Your task to perform on an android device: change alarm snooze length Image 0: 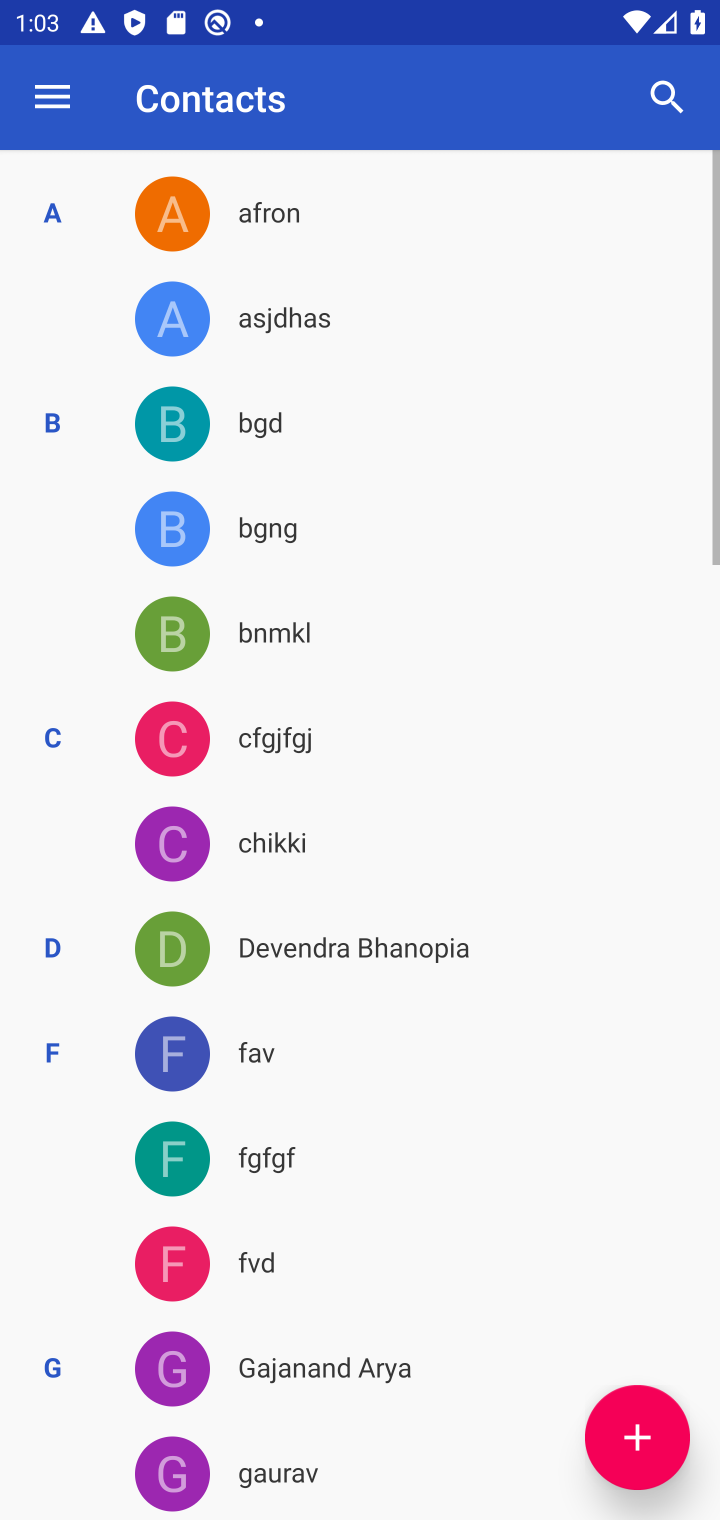
Step 0: press home button
Your task to perform on an android device: change alarm snooze length Image 1: 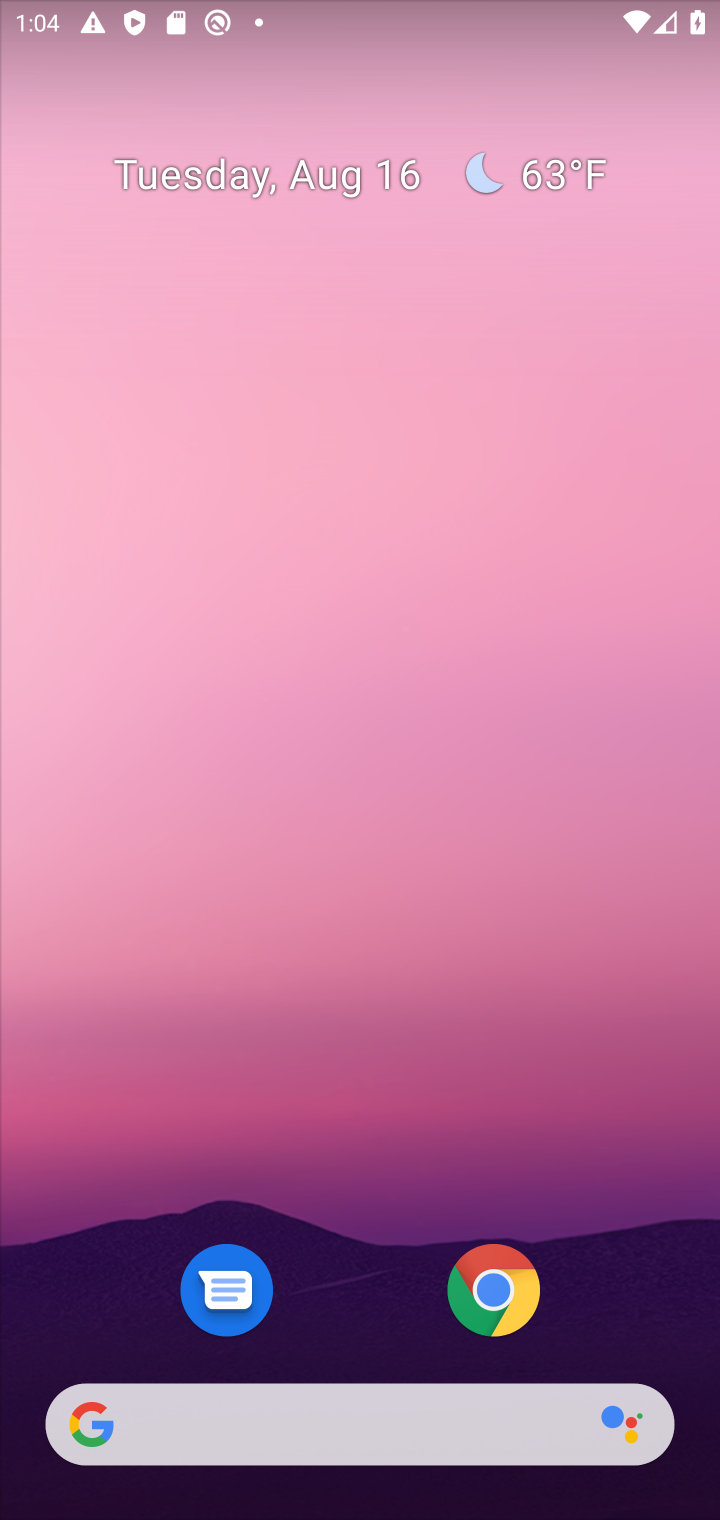
Step 1: click (346, 1416)
Your task to perform on an android device: change alarm snooze length Image 2: 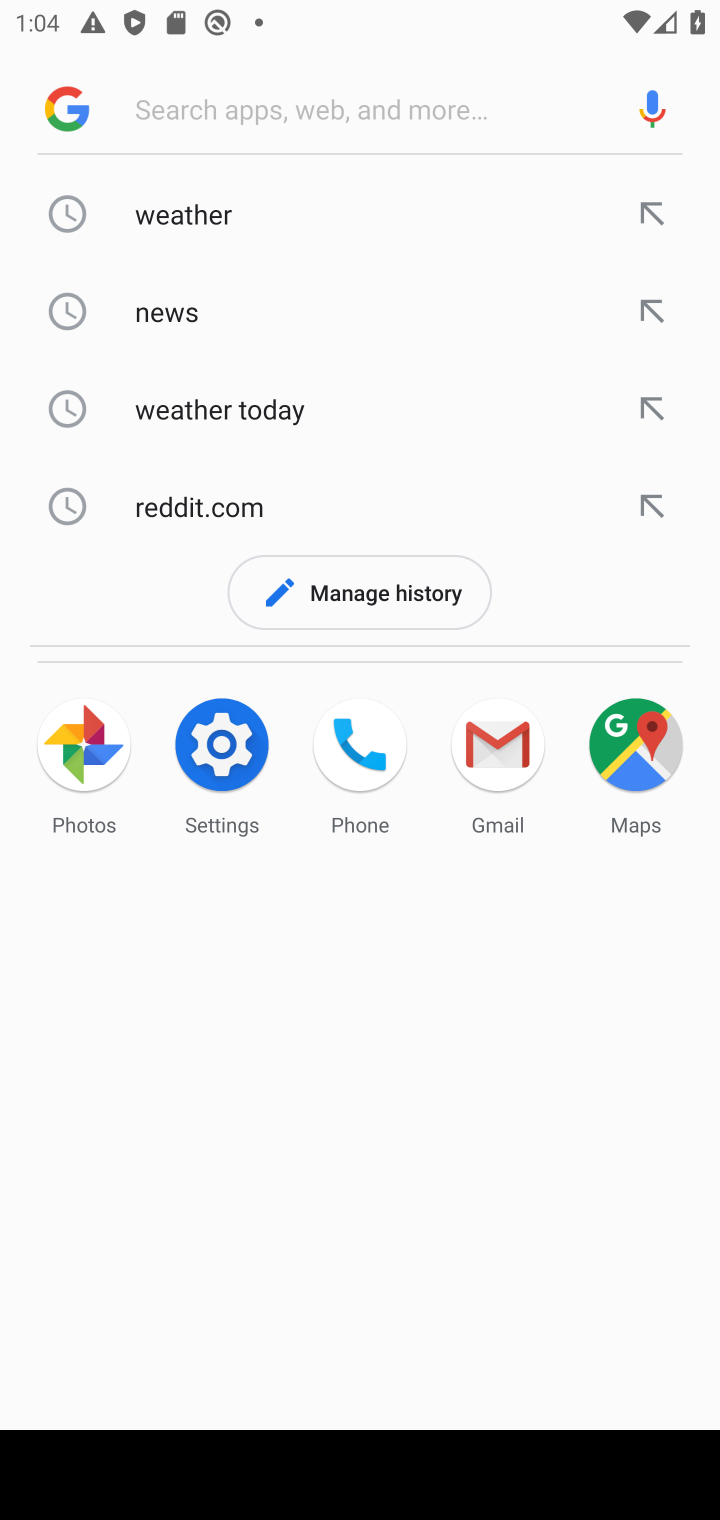
Step 2: press home button
Your task to perform on an android device: change alarm snooze length Image 3: 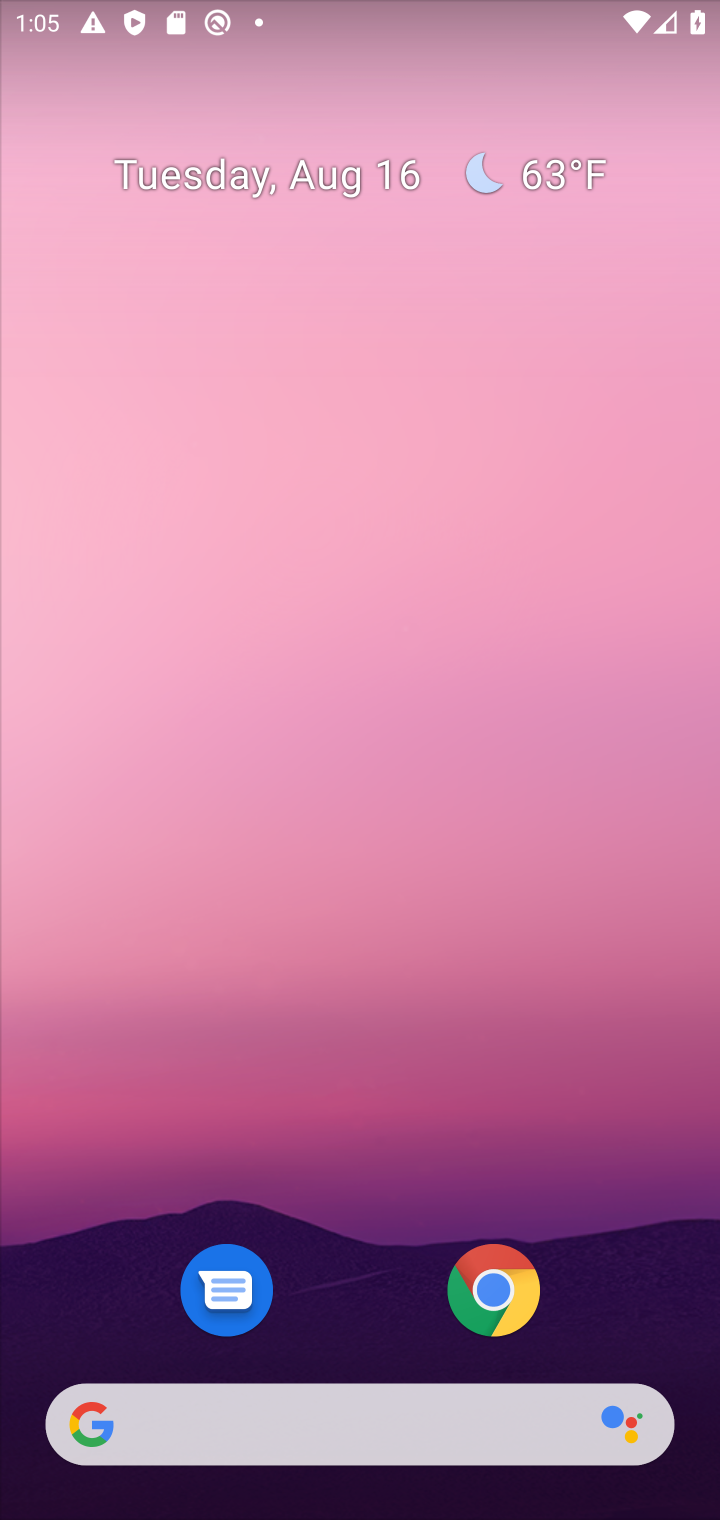
Step 3: drag from (206, 630) to (401, 91)
Your task to perform on an android device: change alarm snooze length Image 4: 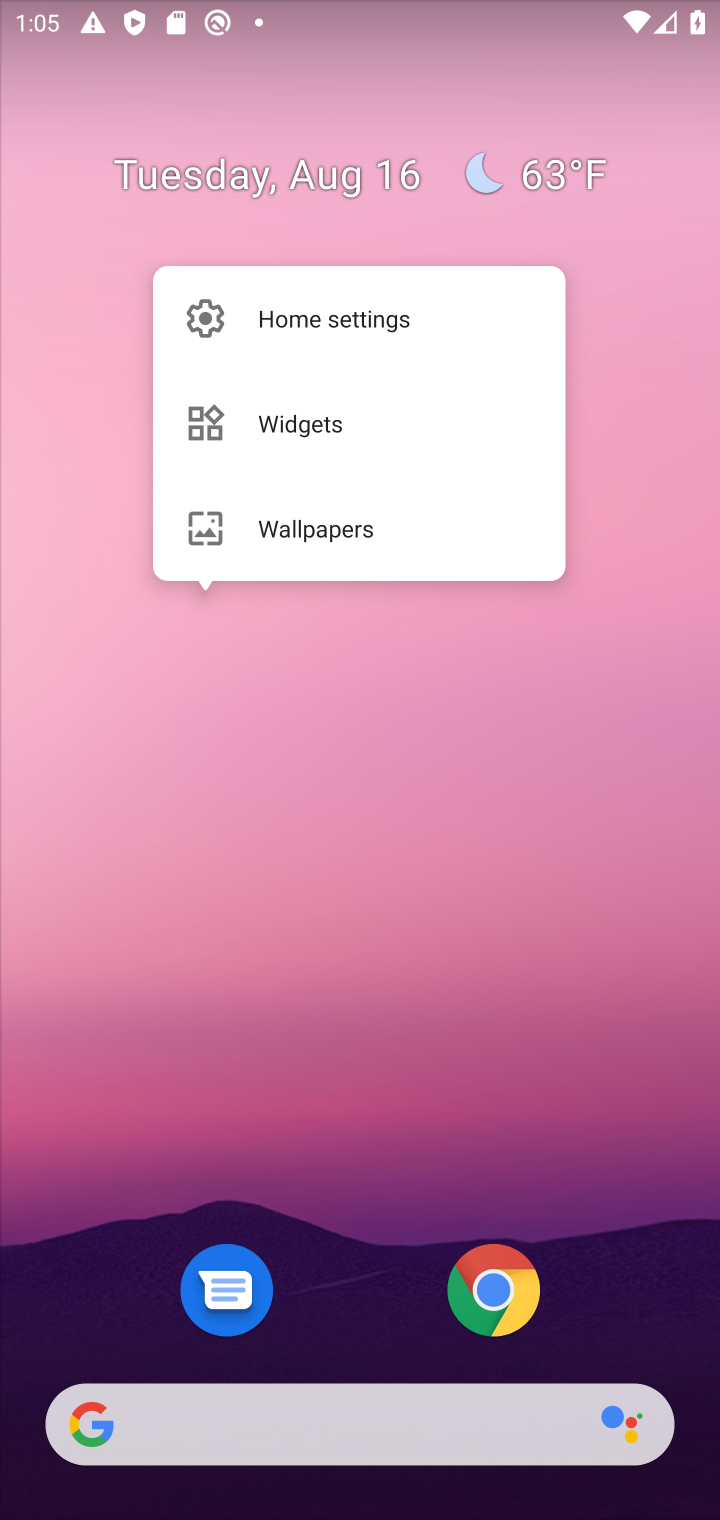
Step 4: click (301, 972)
Your task to perform on an android device: change alarm snooze length Image 5: 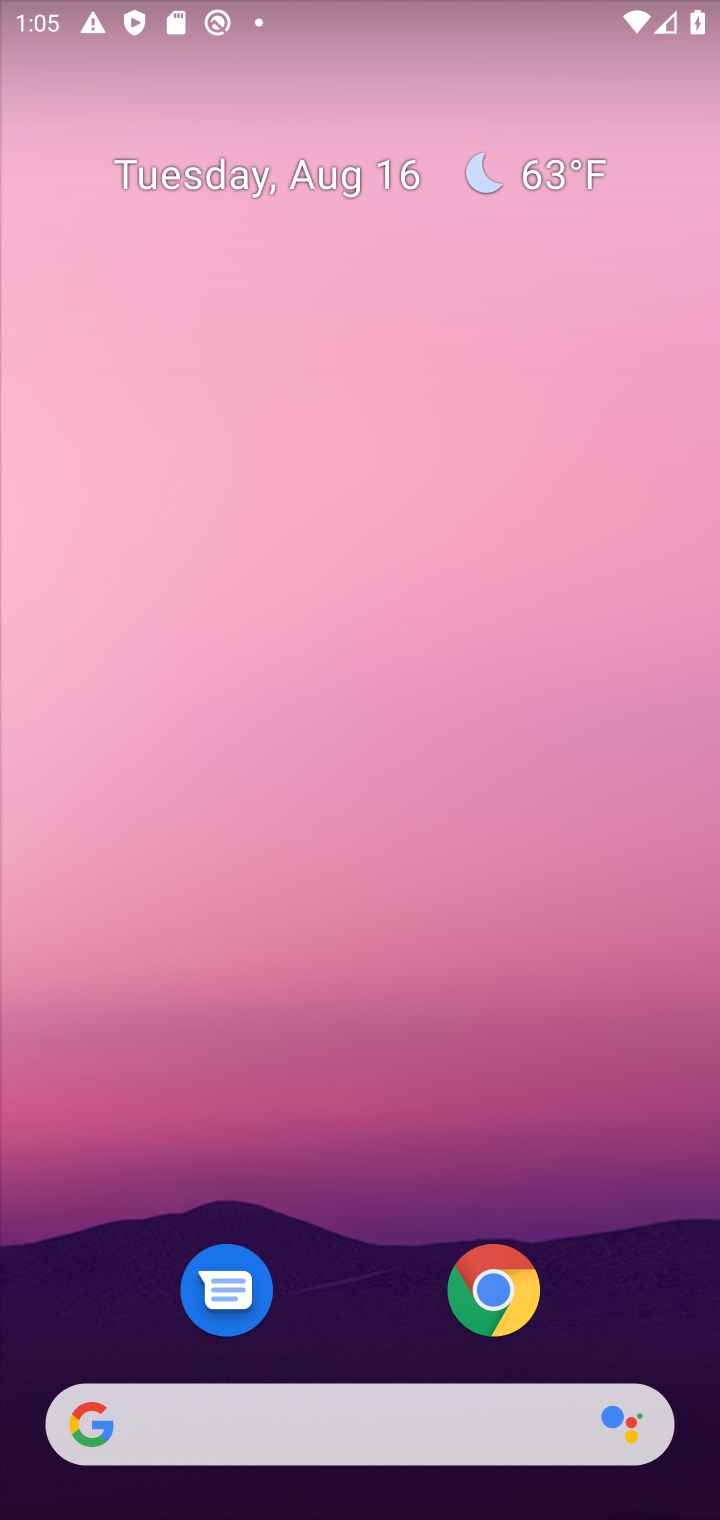
Step 5: press home button
Your task to perform on an android device: change alarm snooze length Image 6: 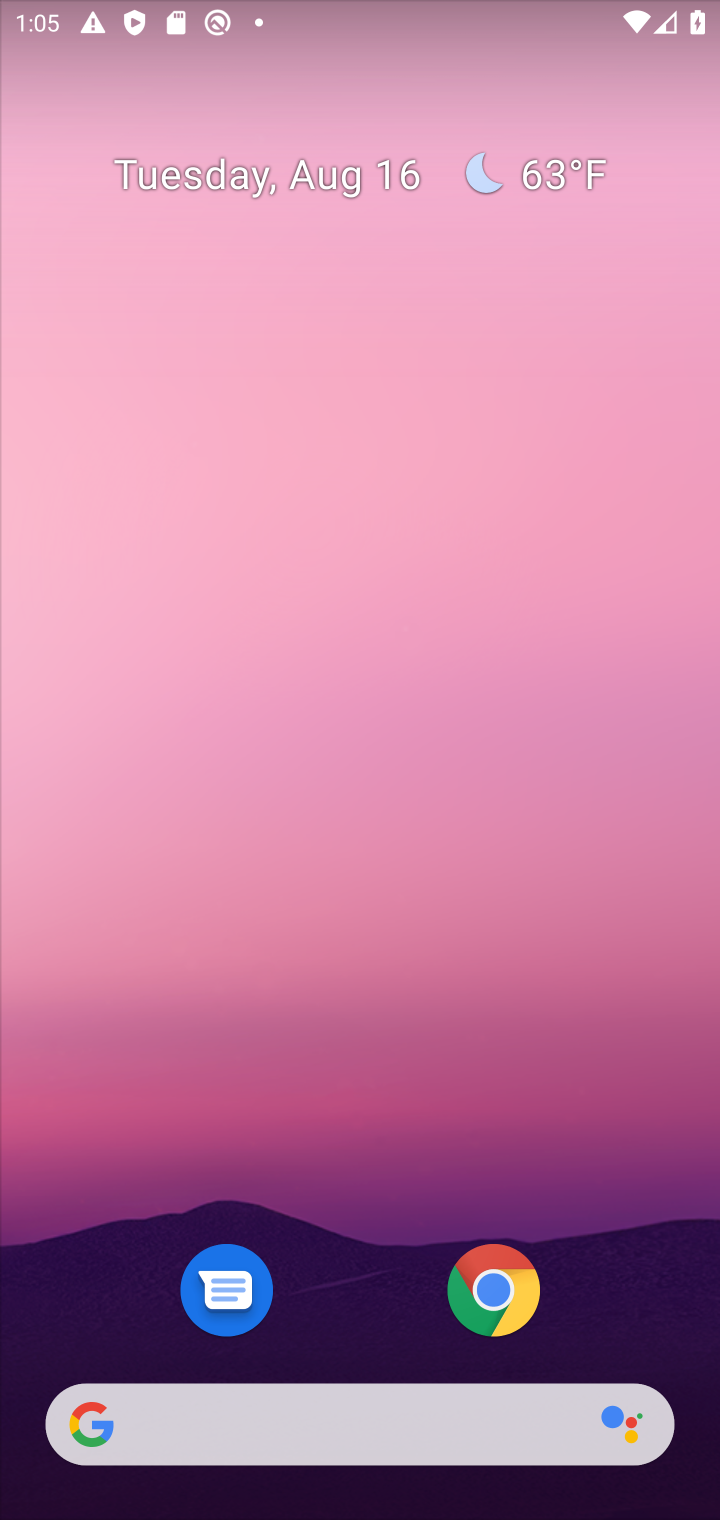
Step 6: drag from (145, 1099) to (470, 31)
Your task to perform on an android device: change alarm snooze length Image 7: 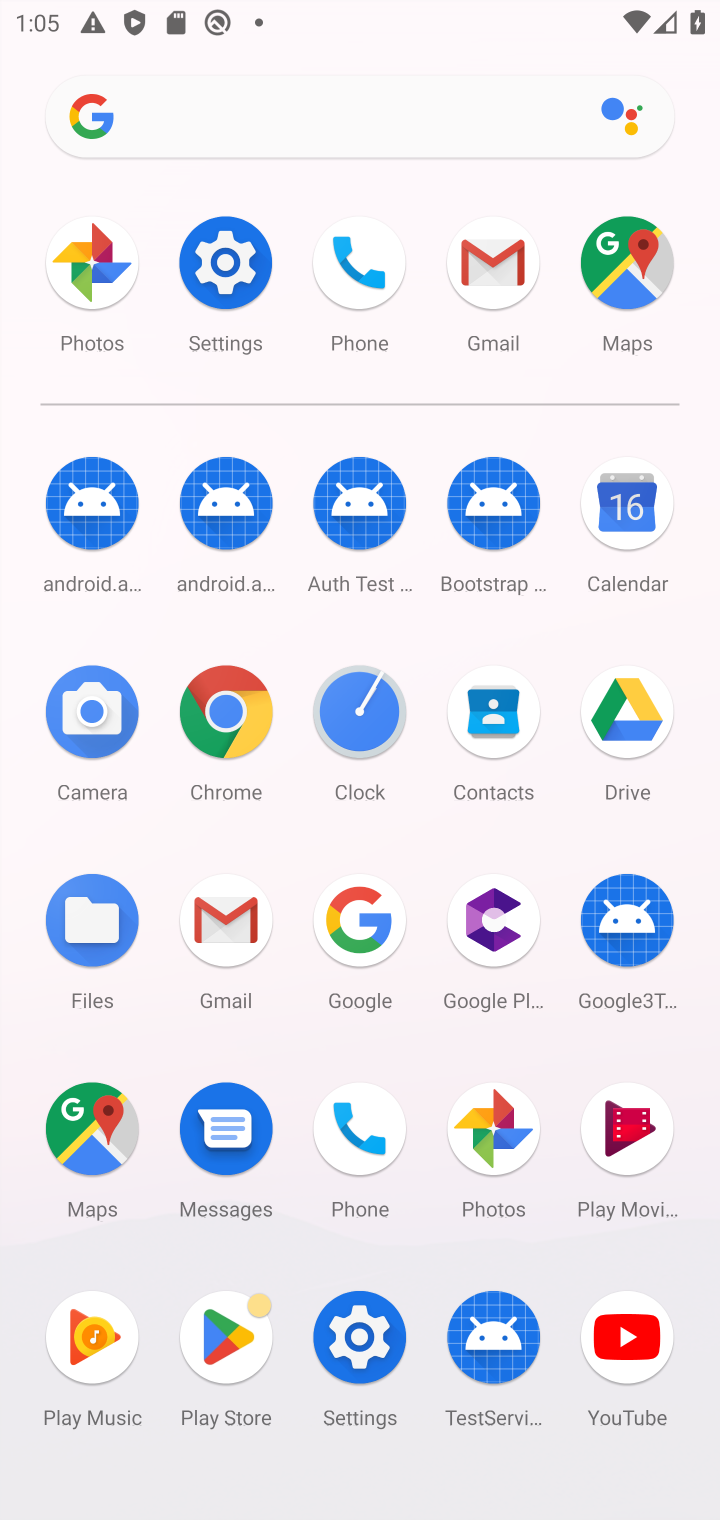
Step 7: click (358, 695)
Your task to perform on an android device: change alarm snooze length Image 8: 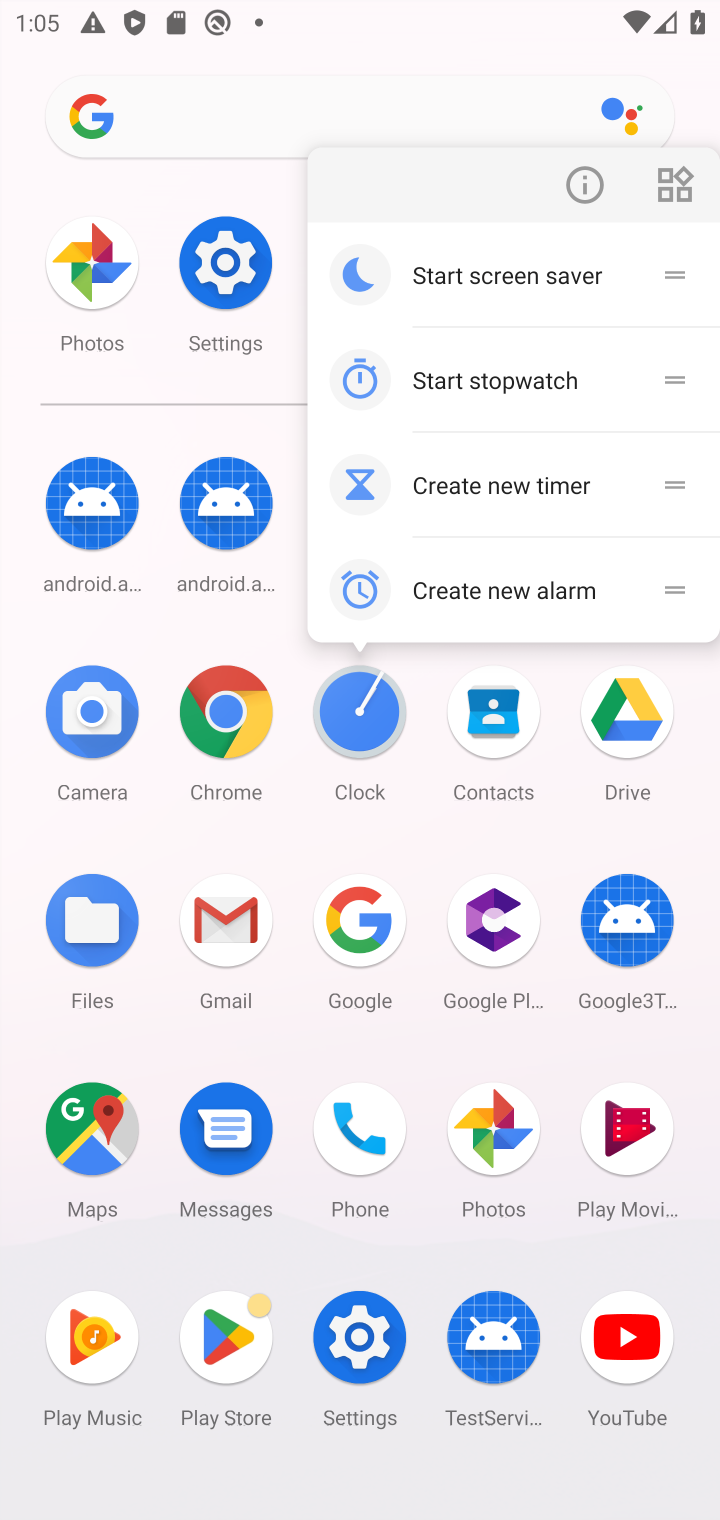
Step 8: click (331, 742)
Your task to perform on an android device: change alarm snooze length Image 9: 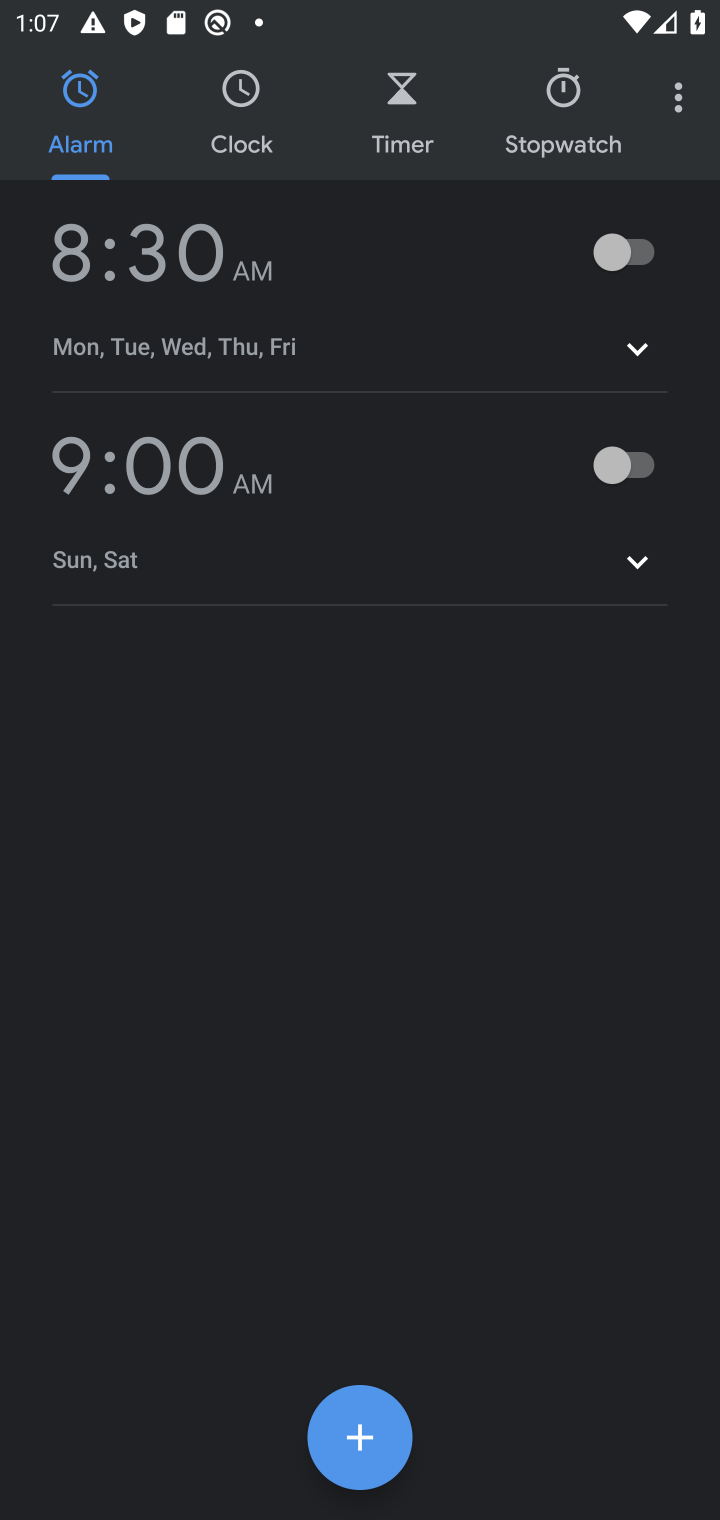
Step 9: click (678, 101)
Your task to perform on an android device: change alarm snooze length Image 10: 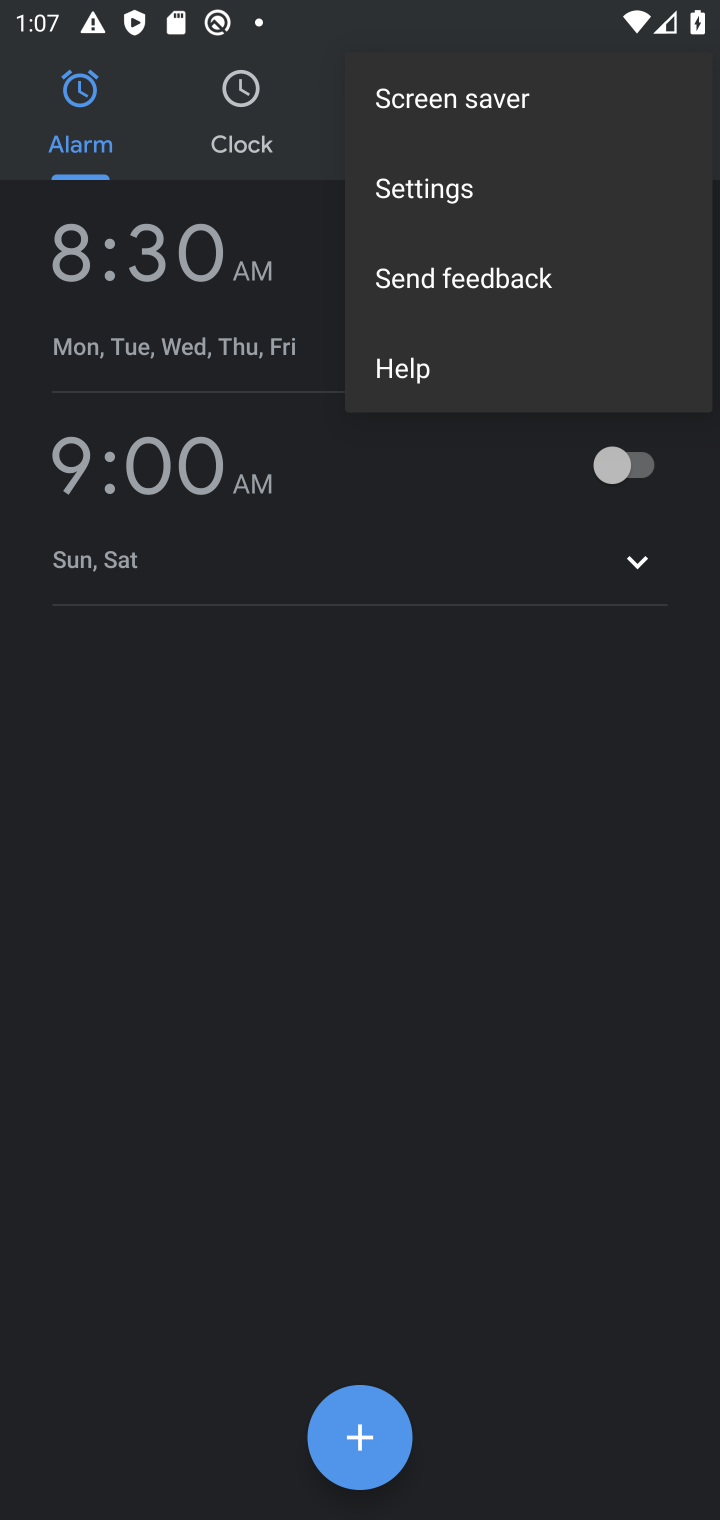
Step 10: click (472, 189)
Your task to perform on an android device: change alarm snooze length Image 11: 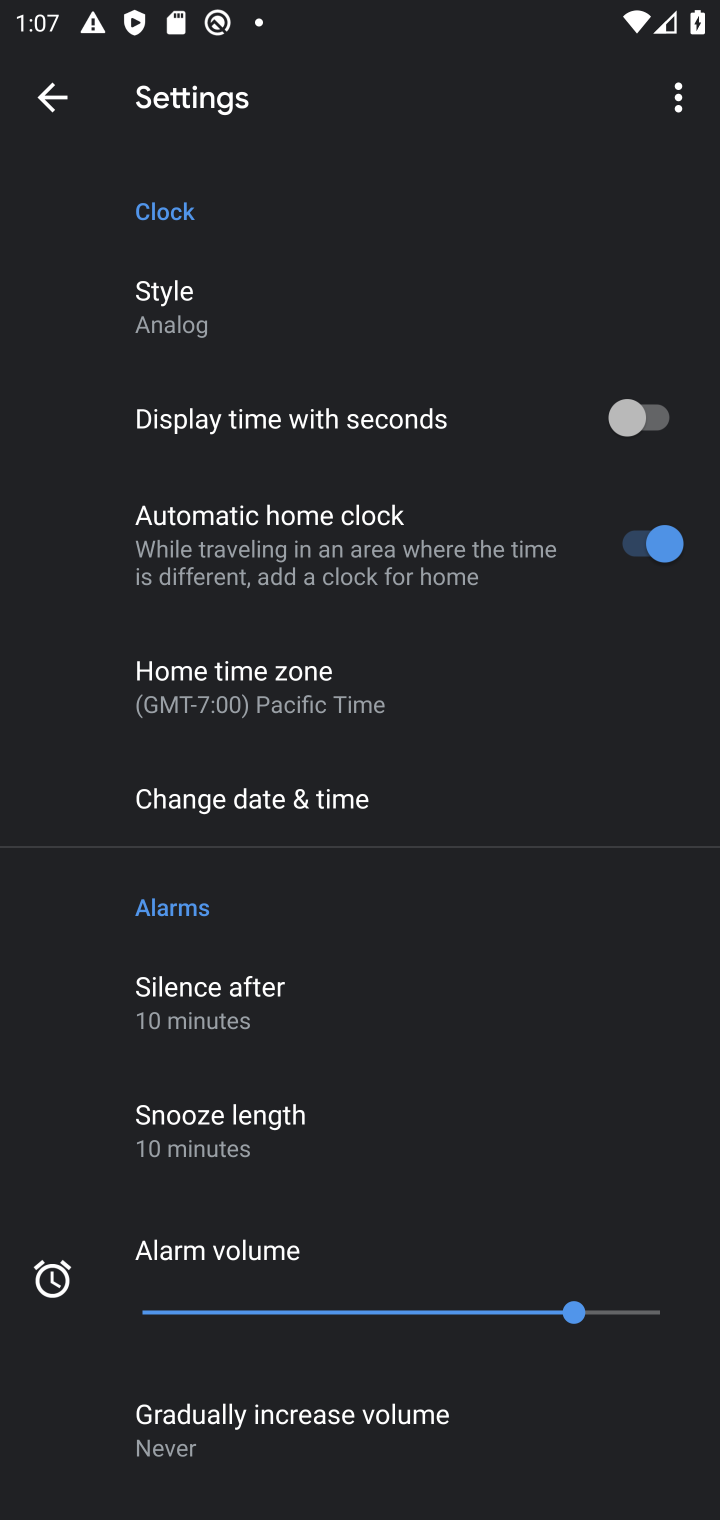
Step 11: click (252, 1122)
Your task to perform on an android device: change alarm snooze length Image 12: 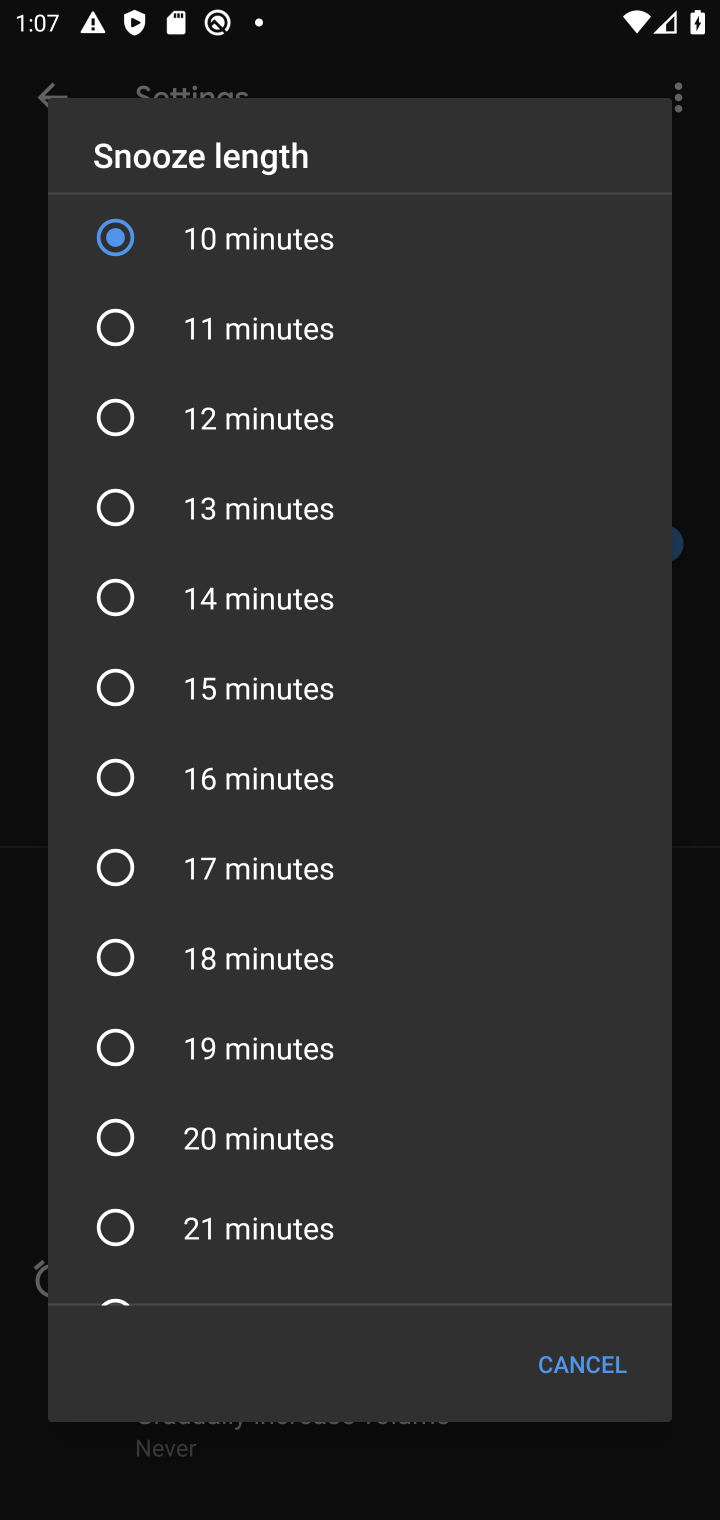
Step 12: click (101, 331)
Your task to perform on an android device: change alarm snooze length Image 13: 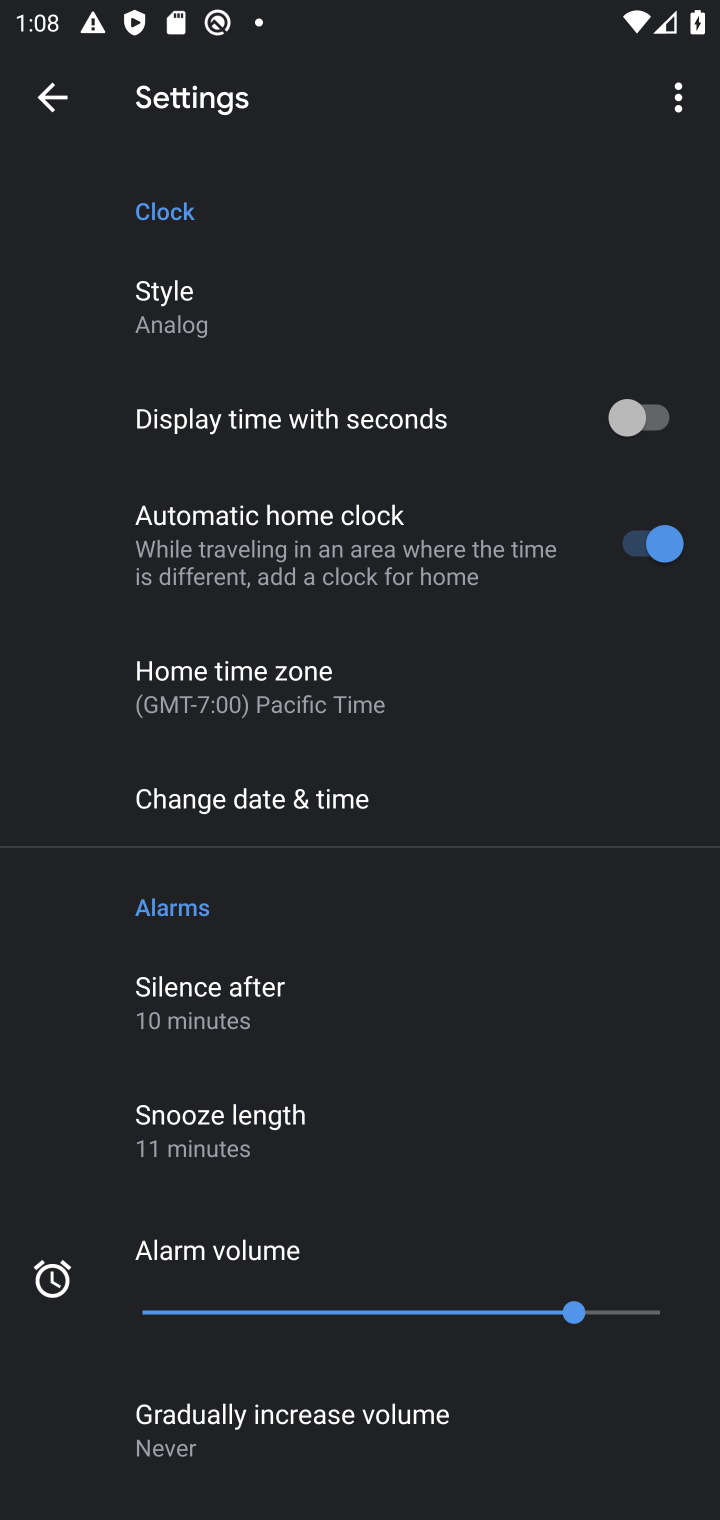
Step 13: task complete